Your task to perform on an android device: Open privacy settings Image 0: 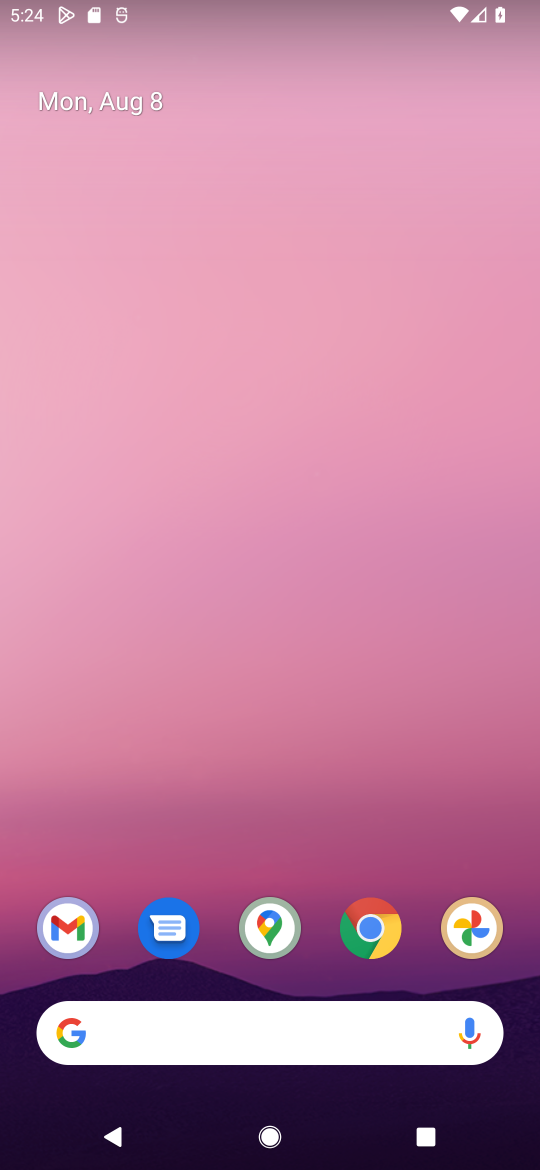
Step 0: drag from (273, 931) to (321, 458)
Your task to perform on an android device: Open privacy settings Image 1: 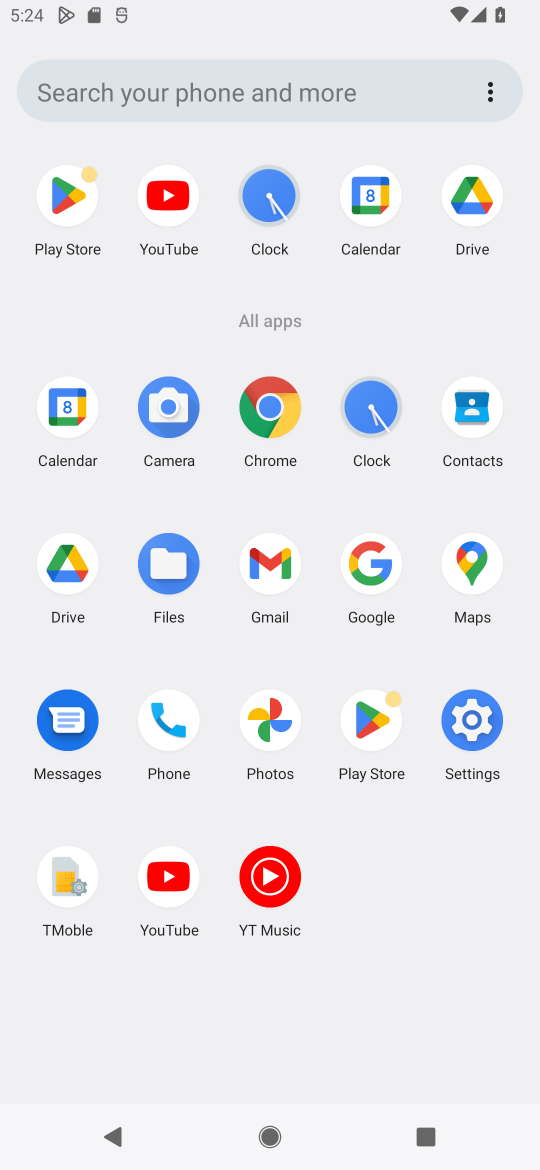
Step 1: click (475, 719)
Your task to perform on an android device: Open privacy settings Image 2: 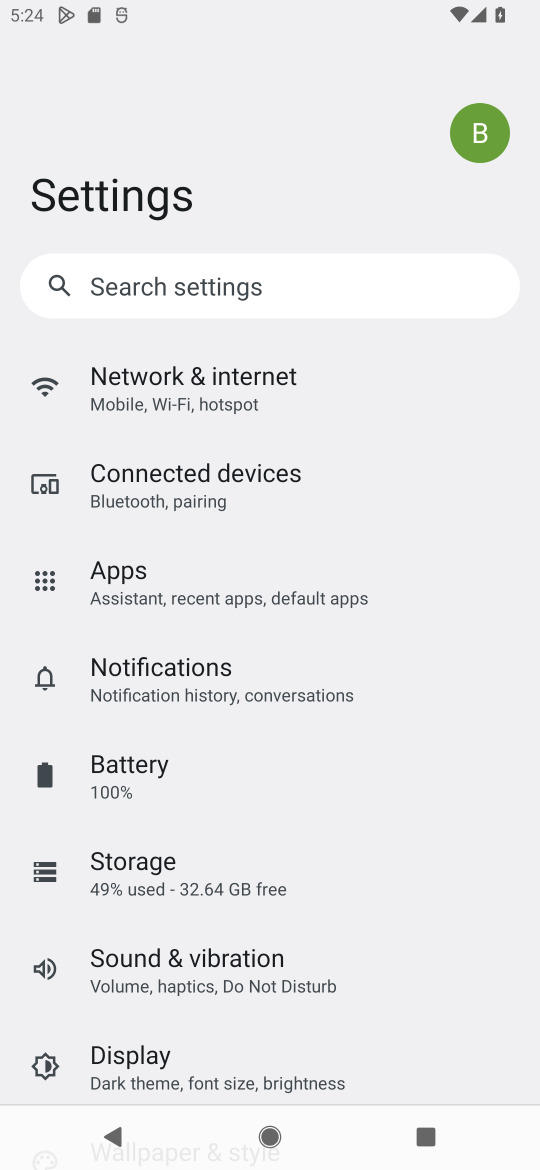
Step 2: drag from (238, 966) to (249, 504)
Your task to perform on an android device: Open privacy settings Image 3: 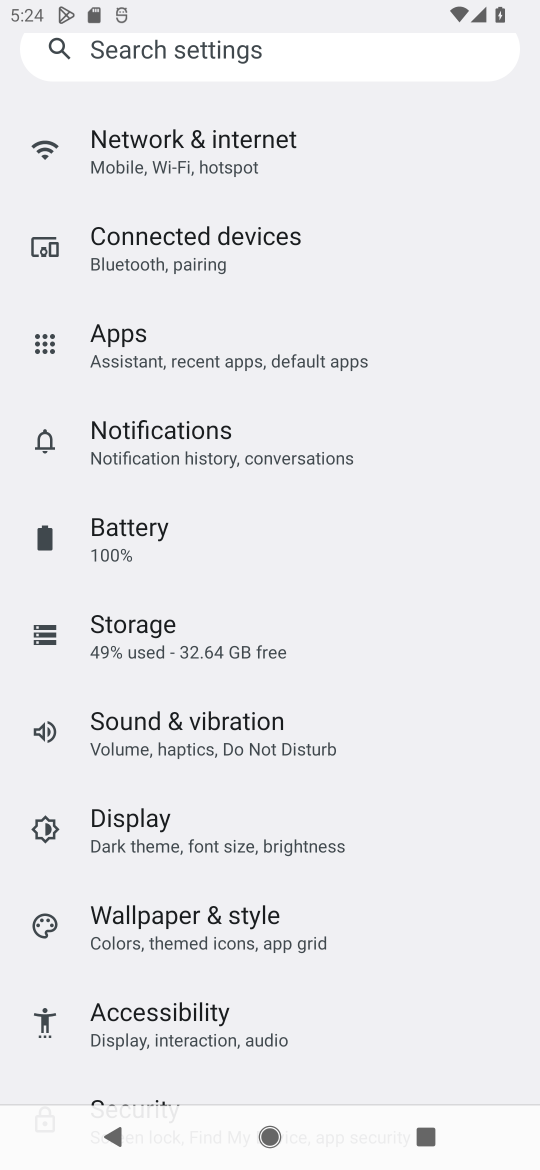
Step 3: drag from (182, 888) to (278, 140)
Your task to perform on an android device: Open privacy settings Image 4: 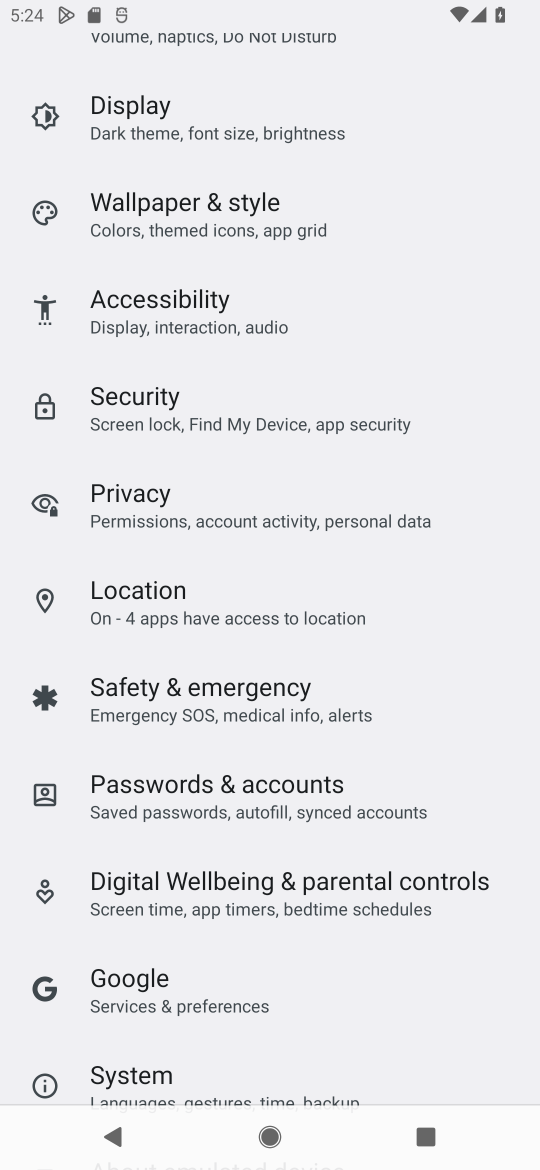
Step 4: click (149, 517)
Your task to perform on an android device: Open privacy settings Image 5: 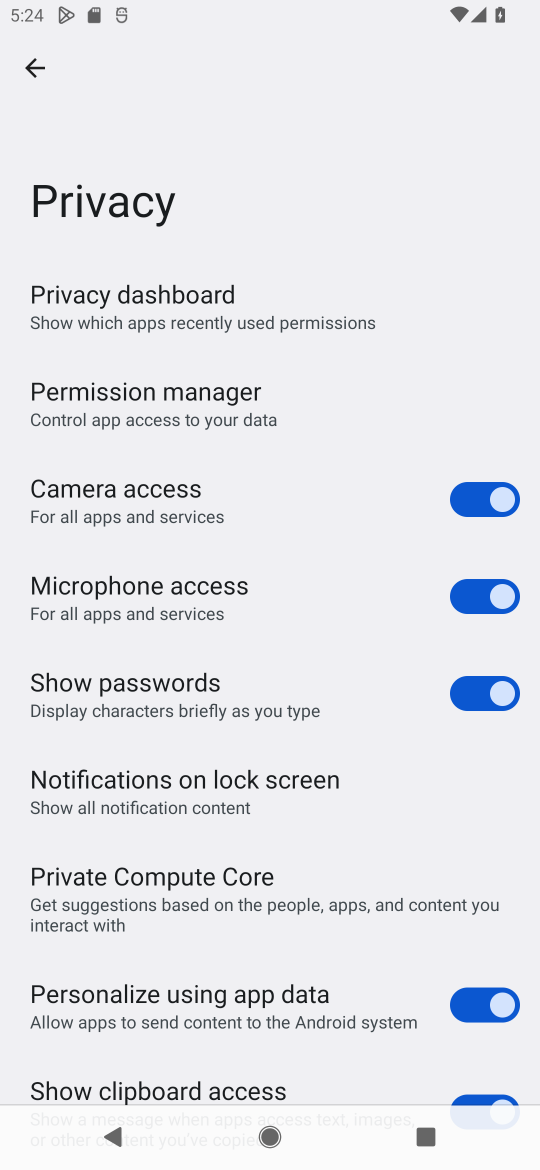
Step 5: task complete